Your task to perform on an android device: delete browsing data in the chrome app Image 0: 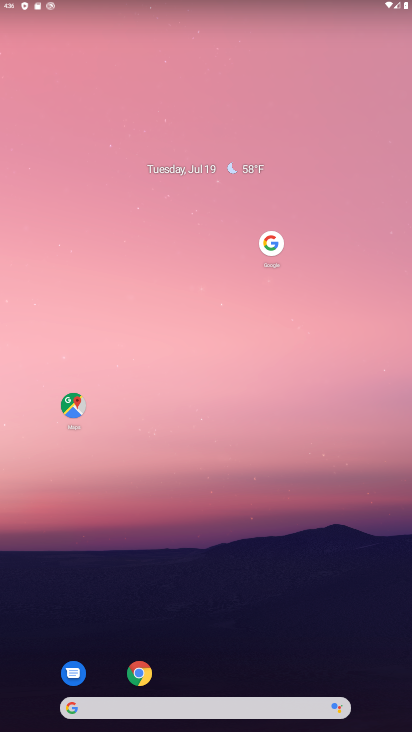
Step 0: press home button
Your task to perform on an android device: delete browsing data in the chrome app Image 1: 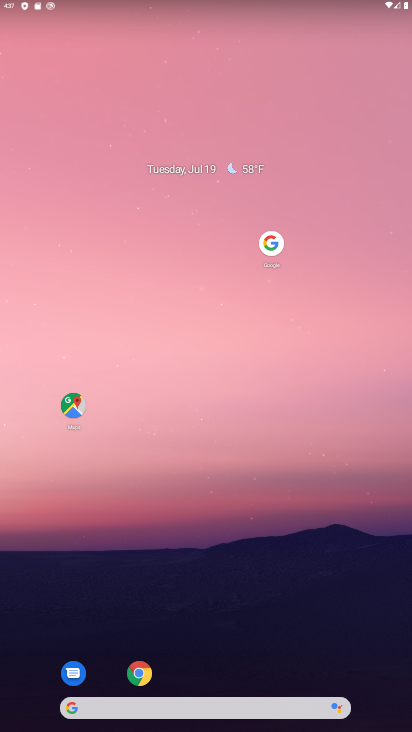
Step 1: click (143, 671)
Your task to perform on an android device: delete browsing data in the chrome app Image 2: 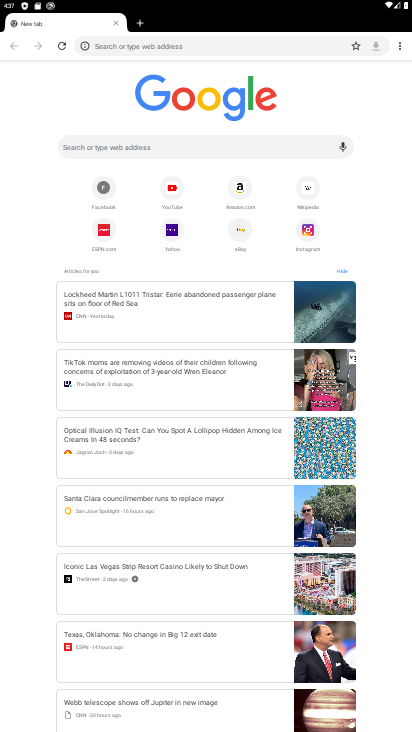
Step 2: click (396, 40)
Your task to perform on an android device: delete browsing data in the chrome app Image 3: 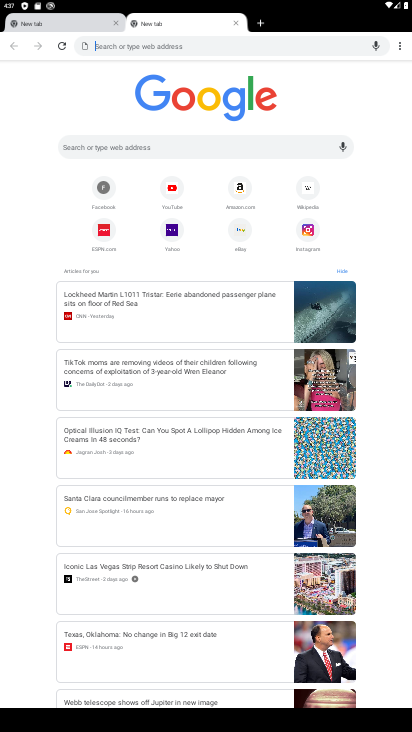
Step 3: drag from (399, 41) to (314, 113)
Your task to perform on an android device: delete browsing data in the chrome app Image 4: 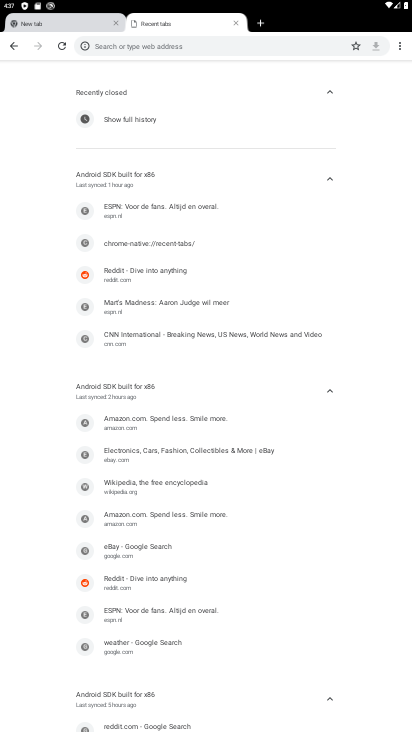
Step 4: drag from (224, 94) to (212, 268)
Your task to perform on an android device: delete browsing data in the chrome app Image 5: 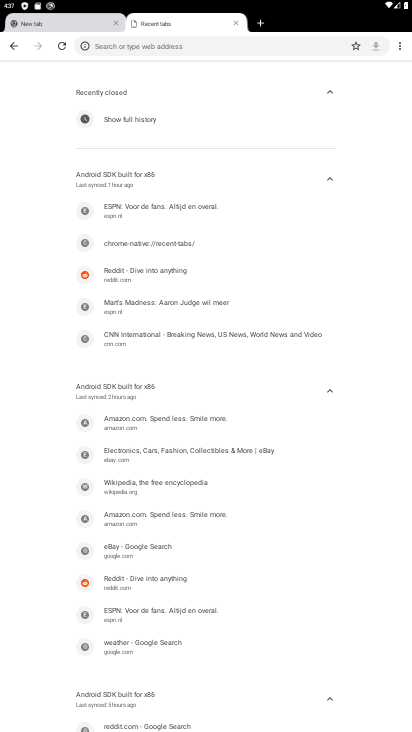
Step 5: click (334, 90)
Your task to perform on an android device: delete browsing data in the chrome app Image 6: 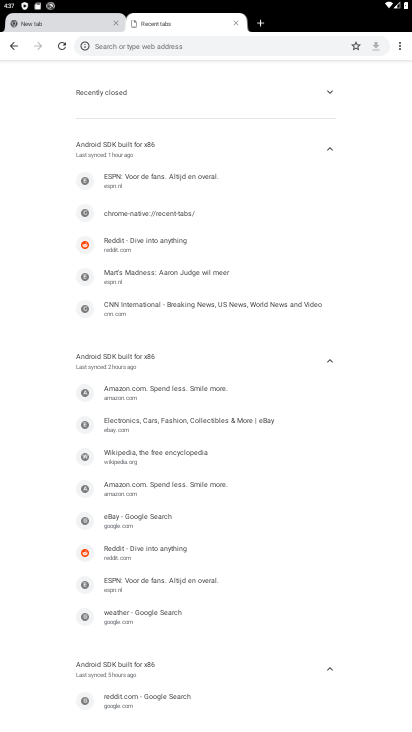
Step 6: click (12, 44)
Your task to perform on an android device: delete browsing data in the chrome app Image 7: 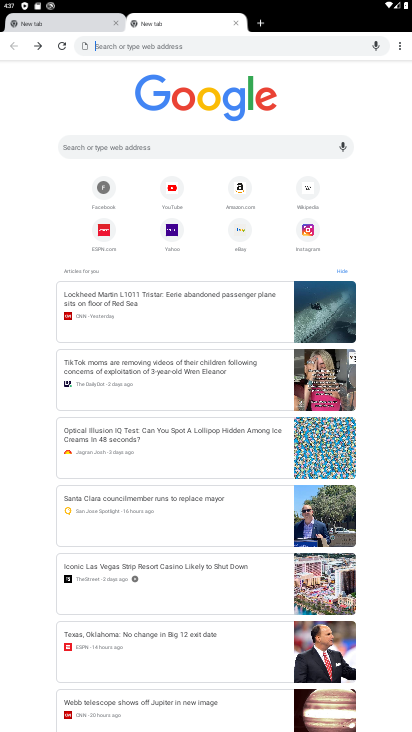
Step 7: drag from (399, 43) to (299, 210)
Your task to perform on an android device: delete browsing data in the chrome app Image 8: 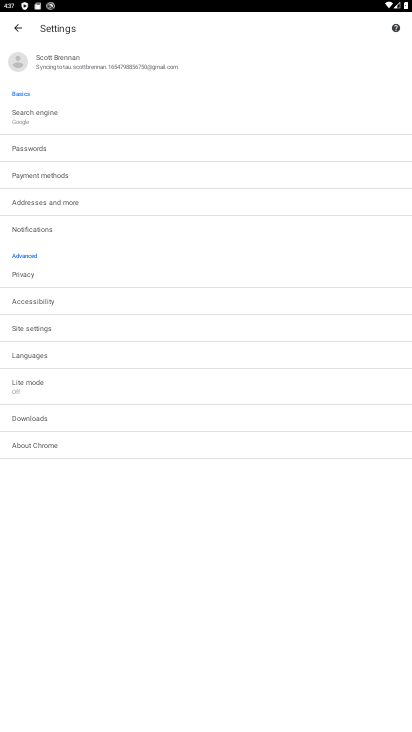
Step 8: click (45, 275)
Your task to perform on an android device: delete browsing data in the chrome app Image 9: 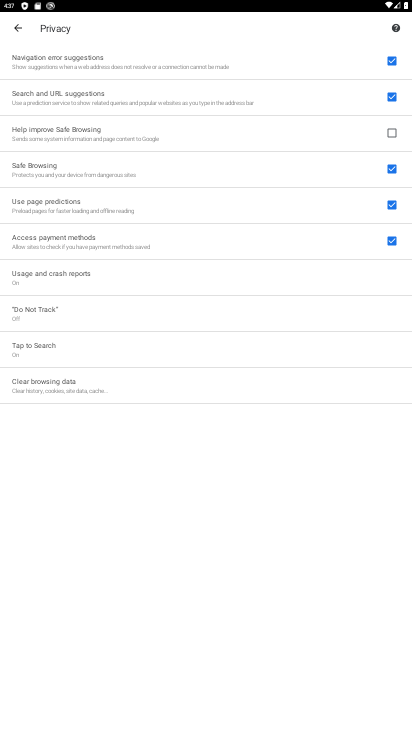
Step 9: click (51, 379)
Your task to perform on an android device: delete browsing data in the chrome app Image 10: 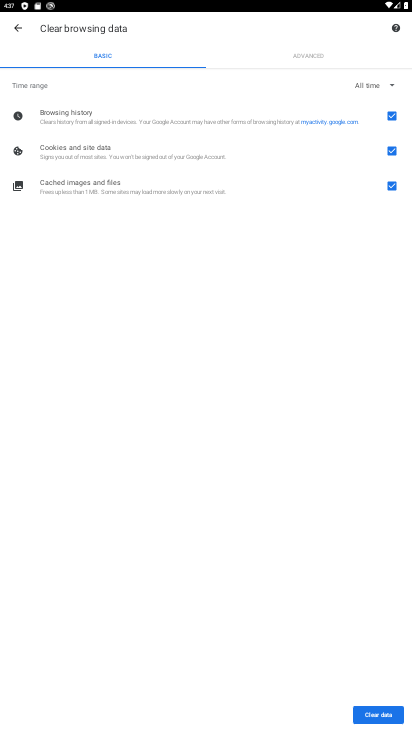
Step 10: click (392, 153)
Your task to perform on an android device: delete browsing data in the chrome app Image 11: 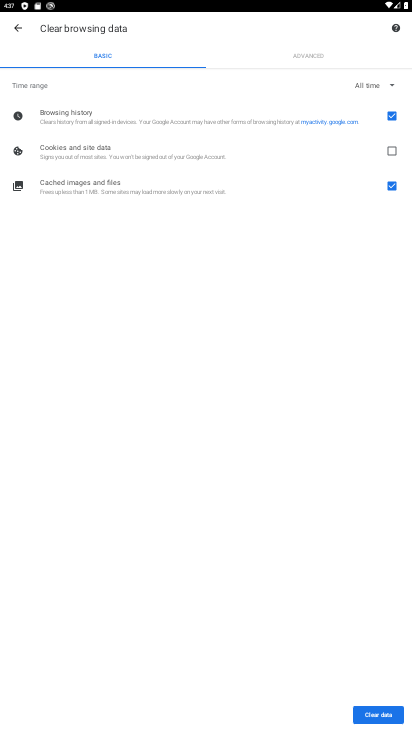
Step 11: click (395, 181)
Your task to perform on an android device: delete browsing data in the chrome app Image 12: 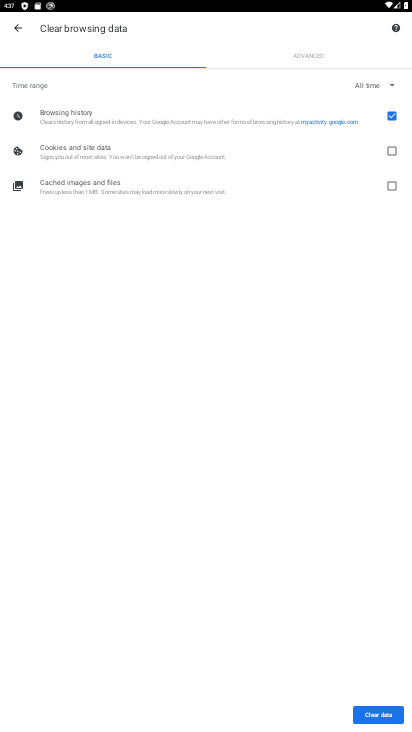
Step 12: click (369, 707)
Your task to perform on an android device: delete browsing data in the chrome app Image 13: 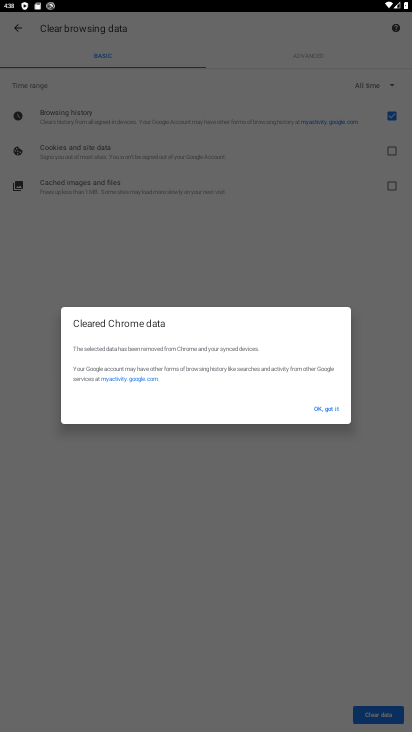
Step 13: click (320, 405)
Your task to perform on an android device: delete browsing data in the chrome app Image 14: 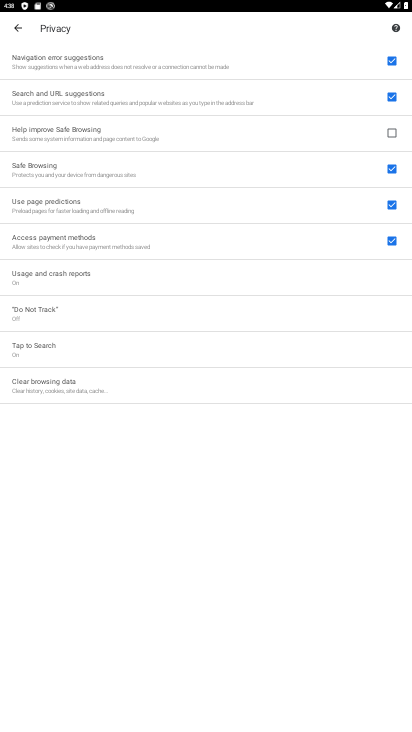
Step 14: task complete